Your task to perform on an android device: Open ESPN.com Image 0: 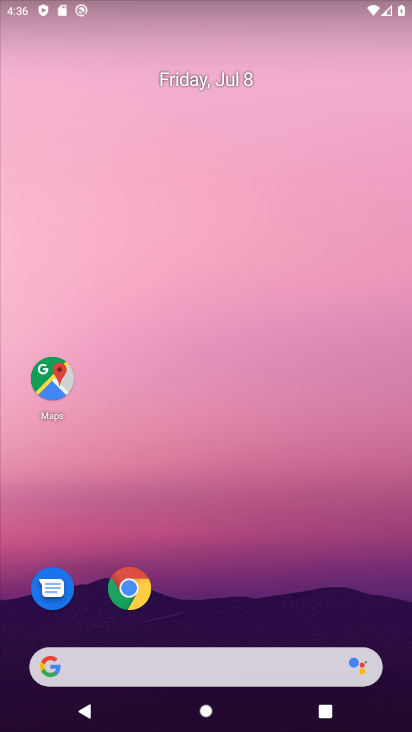
Step 0: click (231, 669)
Your task to perform on an android device: Open ESPN.com Image 1: 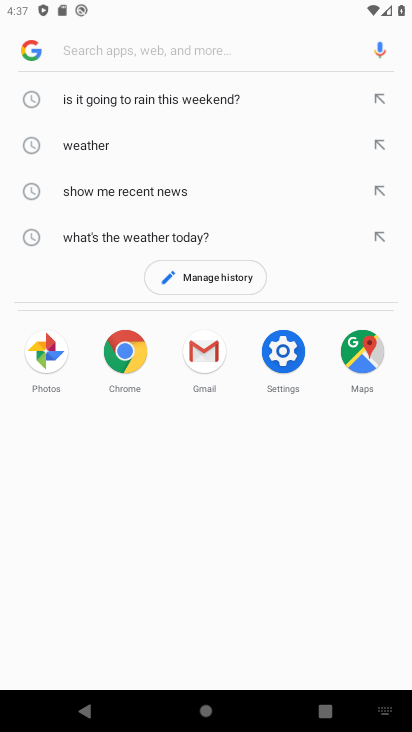
Step 1: type "ESPN.com"
Your task to perform on an android device: Open ESPN.com Image 2: 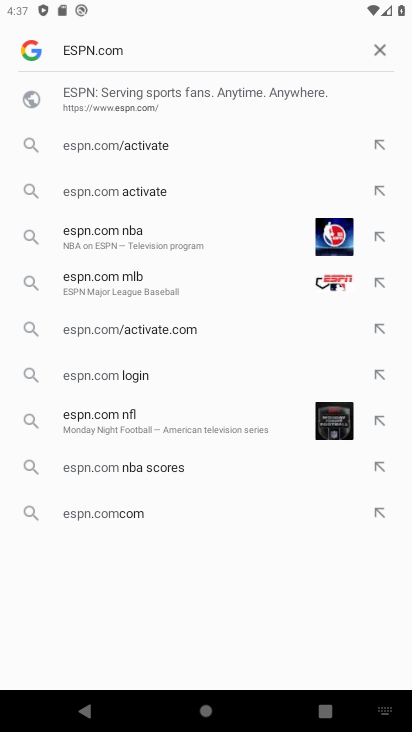
Step 2: press enter
Your task to perform on an android device: Open ESPN.com Image 3: 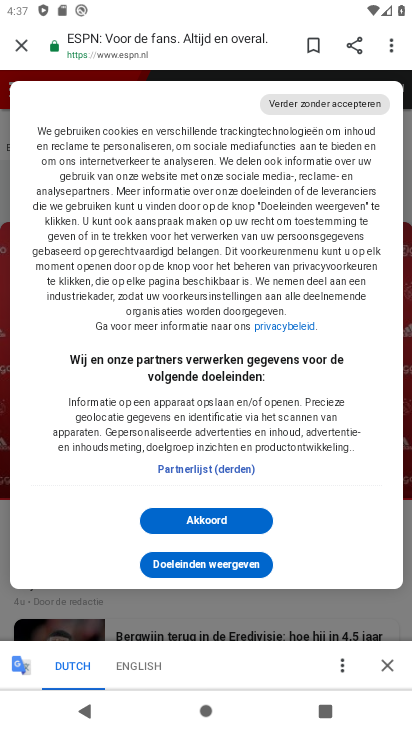
Step 3: task complete